Your task to perform on an android device: check data usage Image 0: 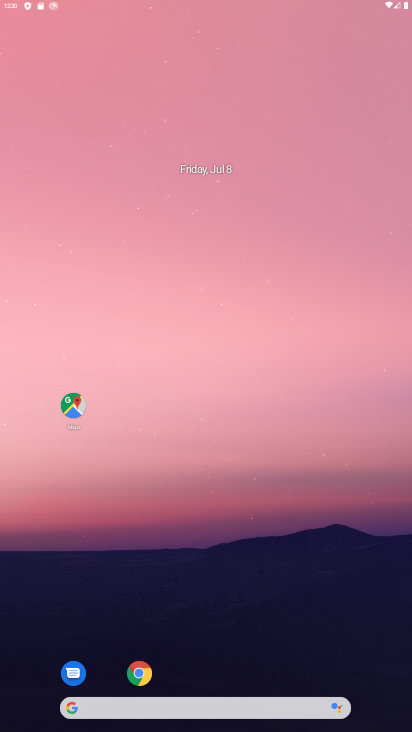
Step 0: press home button
Your task to perform on an android device: check data usage Image 1: 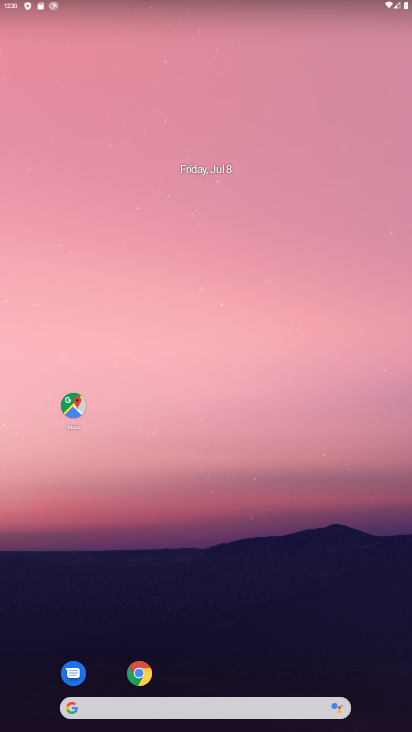
Step 1: drag from (216, 636) to (209, 108)
Your task to perform on an android device: check data usage Image 2: 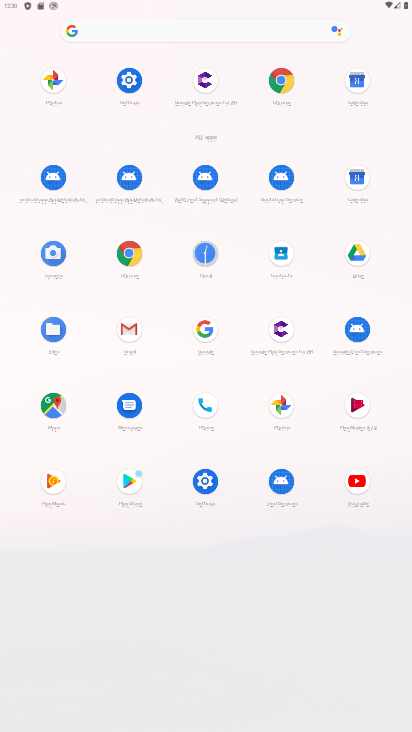
Step 2: click (131, 73)
Your task to perform on an android device: check data usage Image 3: 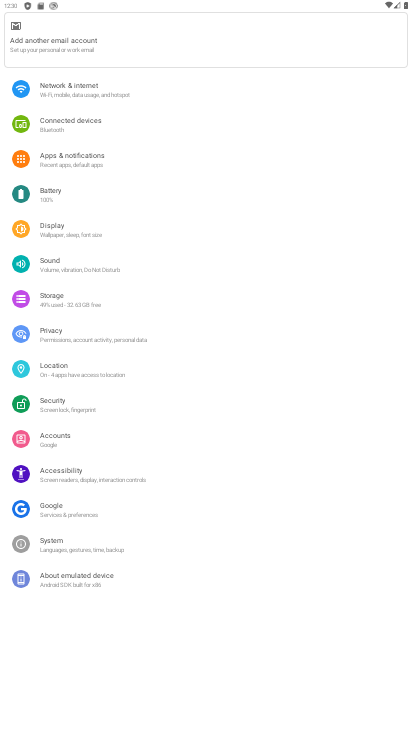
Step 3: click (88, 89)
Your task to perform on an android device: check data usage Image 4: 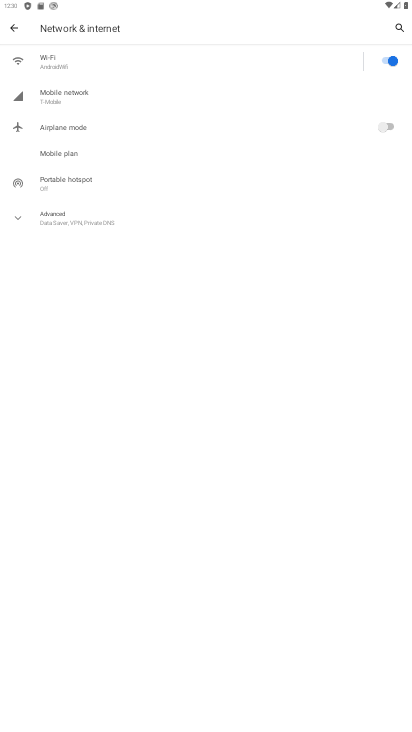
Step 4: click (87, 97)
Your task to perform on an android device: check data usage Image 5: 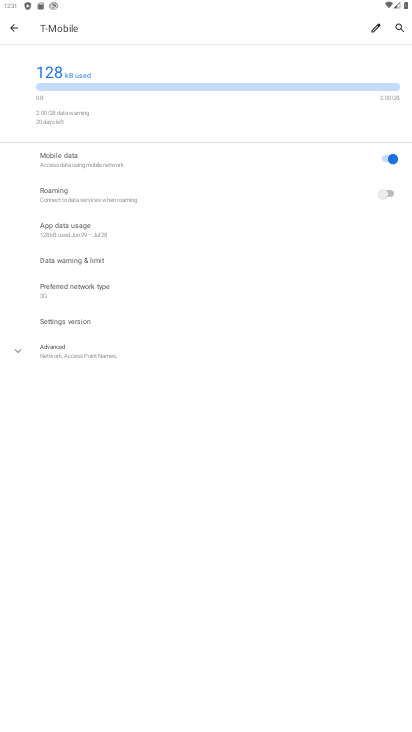
Step 5: click (93, 225)
Your task to perform on an android device: check data usage Image 6: 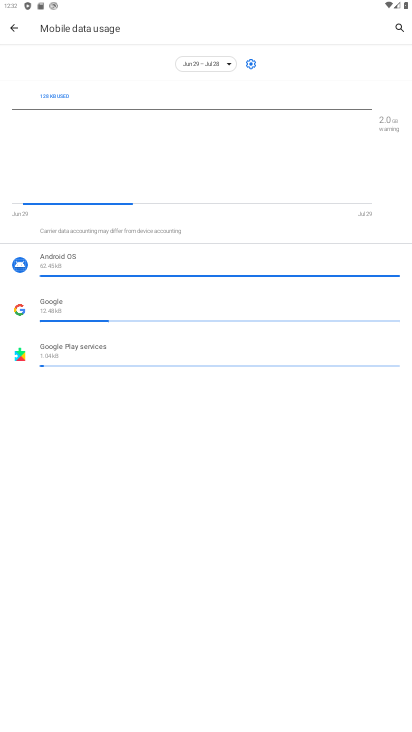
Step 6: task complete